Your task to perform on an android device: turn off smart reply in the gmail app Image 0: 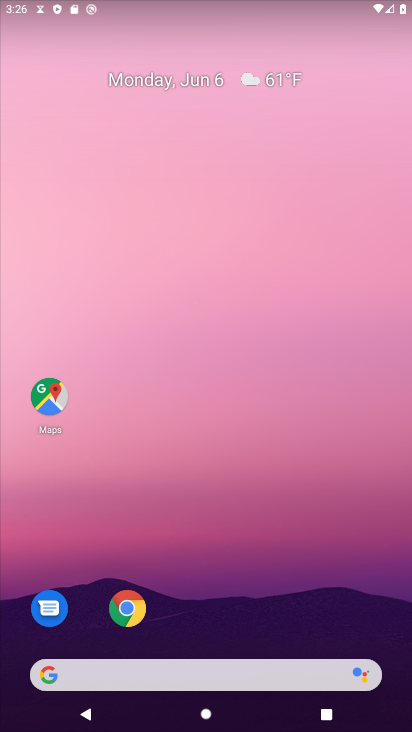
Step 0: drag from (278, 643) to (248, 28)
Your task to perform on an android device: turn off smart reply in the gmail app Image 1: 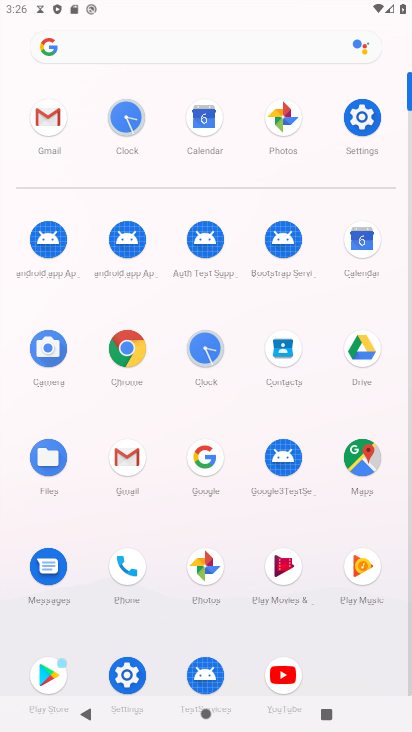
Step 1: click (52, 116)
Your task to perform on an android device: turn off smart reply in the gmail app Image 2: 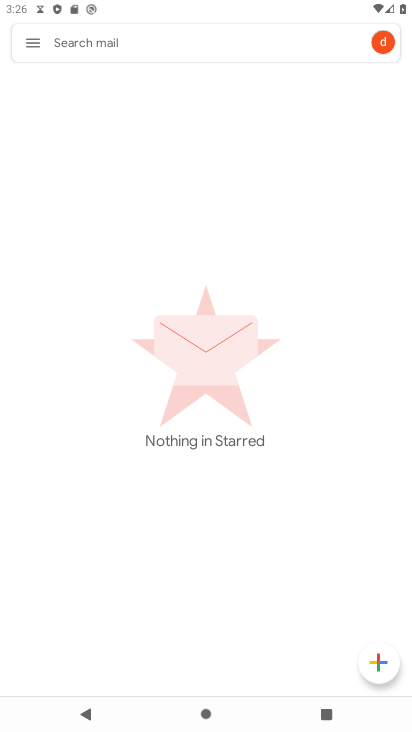
Step 2: click (38, 49)
Your task to perform on an android device: turn off smart reply in the gmail app Image 3: 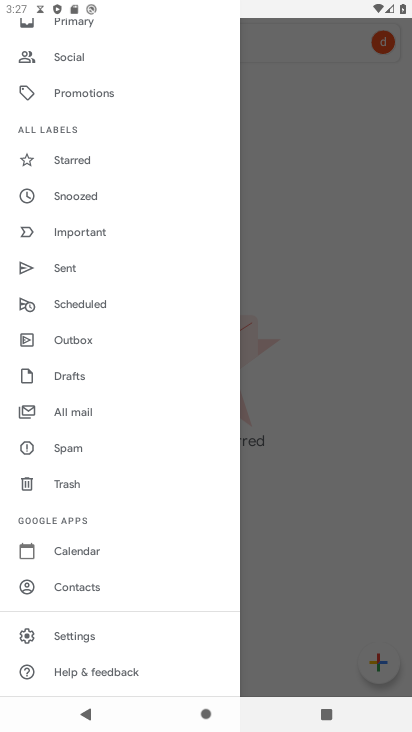
Step 3: click (71, 635)
Your task to perform on an android device: turn off smart reply in the gmail app Image 4: 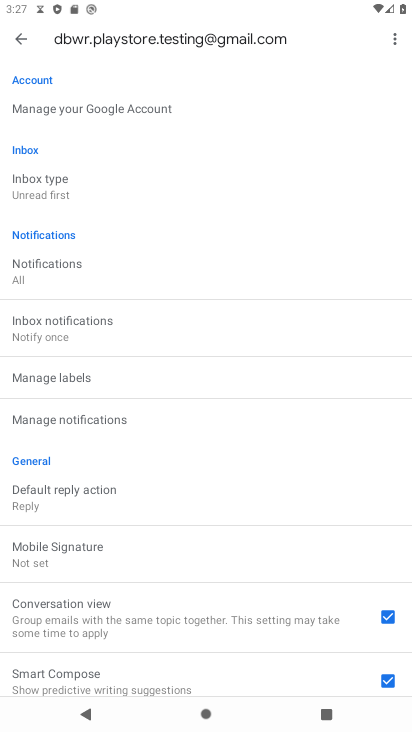
Step 4: drag from (105, 616) to (147, 209)
Your task to perform on an android device: turn off smart reply in the gmail app Image 5: 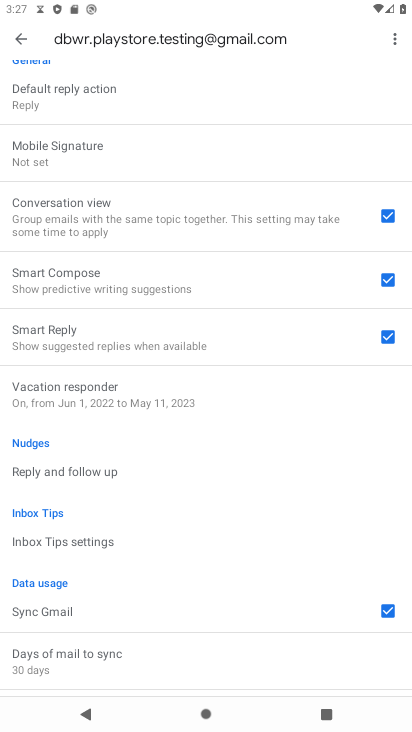
Step 5: click (407, 327)
Your task to perform on an android device: turn off smart reply in the gmail app Image 6: 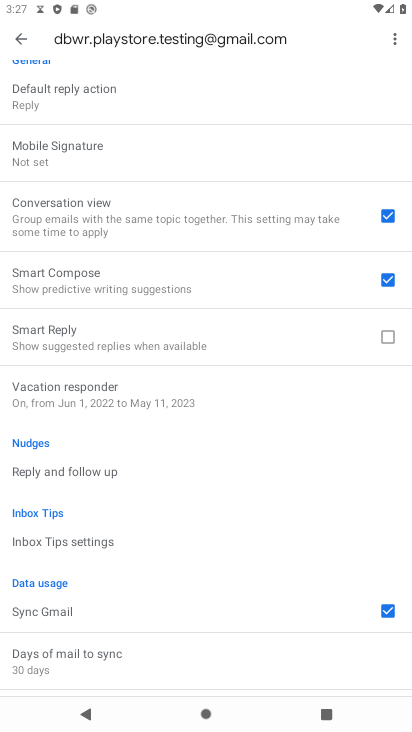
Step 6: task complete